Your task to perform on an android device: Search for Italian restaurants on Maps Image 0: 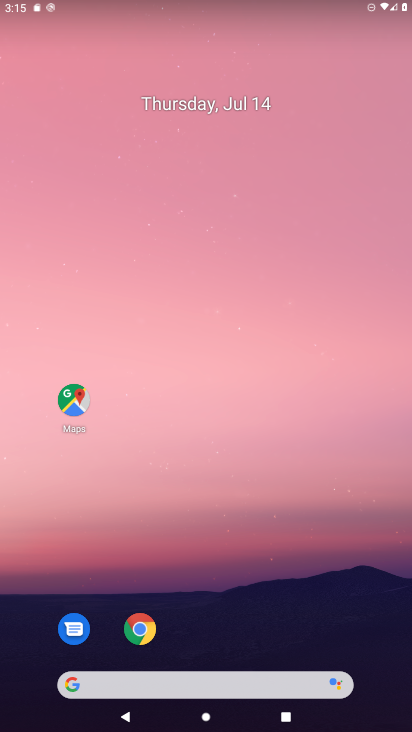
Step 0: press home button
Your task to perform on an android device: Search for Italian restaurants on Maps Image 1: 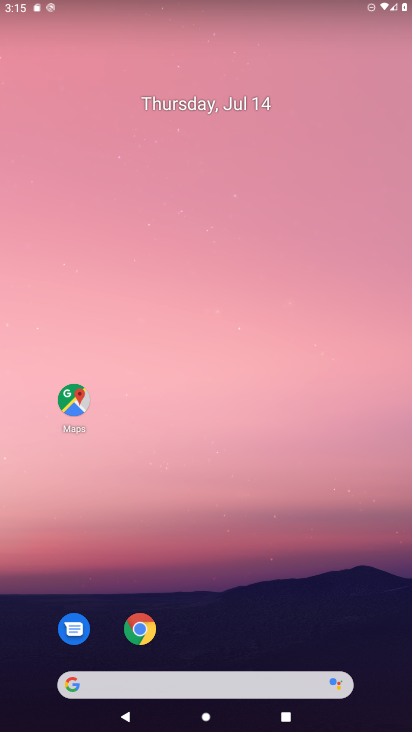
Step 1: press home button
Your task to perform on an android device: Search for Italian restaurants on Maps Image 2: 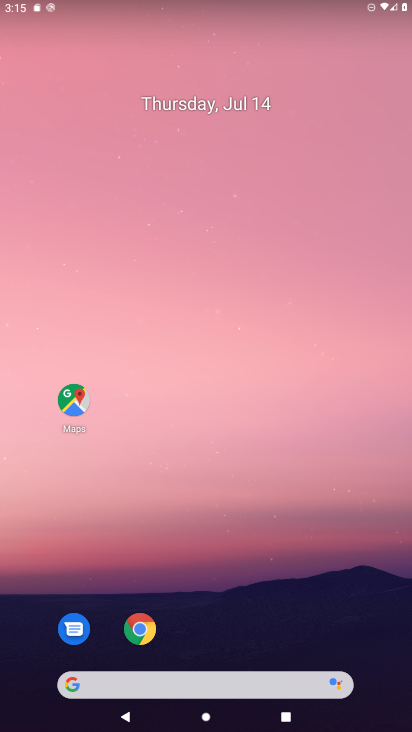
Step 2: press home button
Your task to perform on an android device: Search for Italian restaurants on Maps Image 3: 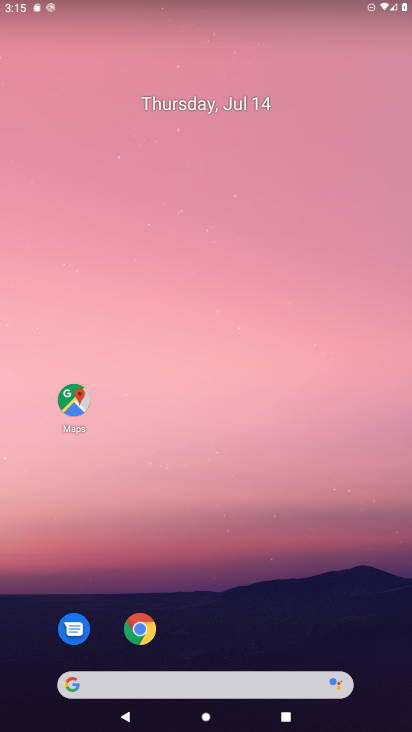
Step 3: press home button
Your task to perform on an android device: Search for Italian restaurants on Maps Image 4: 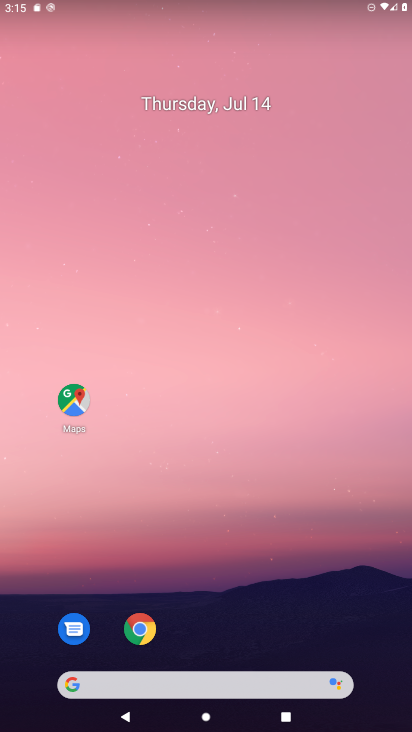
Step 4: press home button
Your task to perform on an android device: Search for Italian restaurants on Maps Image 5: 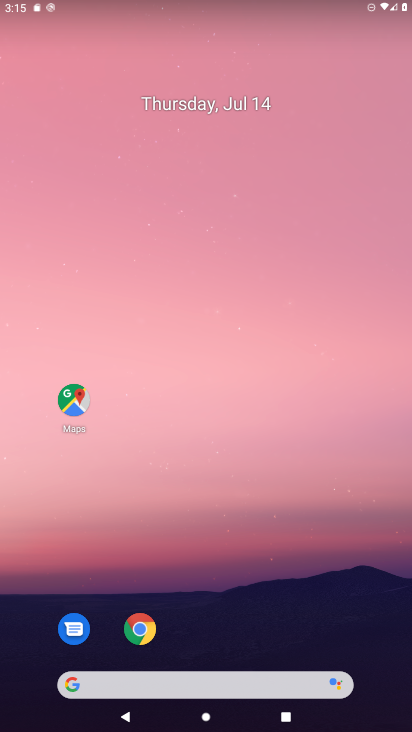
Step 5: press home button
Your task to perform on an android device: Search for Italian restaurants on Maps Image 6: 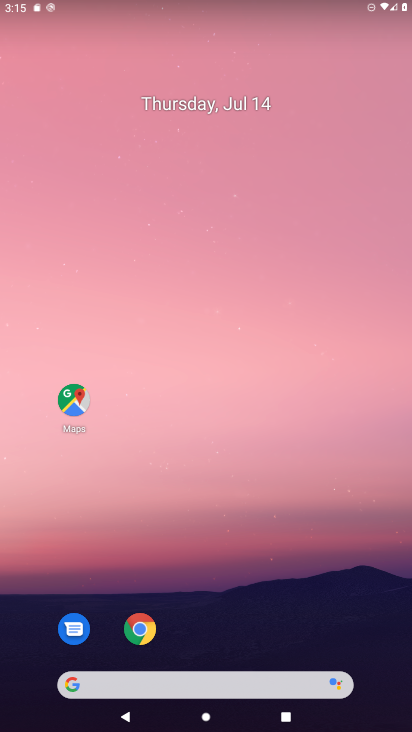
Step 6: press home button
Your task to perform on an android device: Search for Italian restaurants on Maps Image 7: 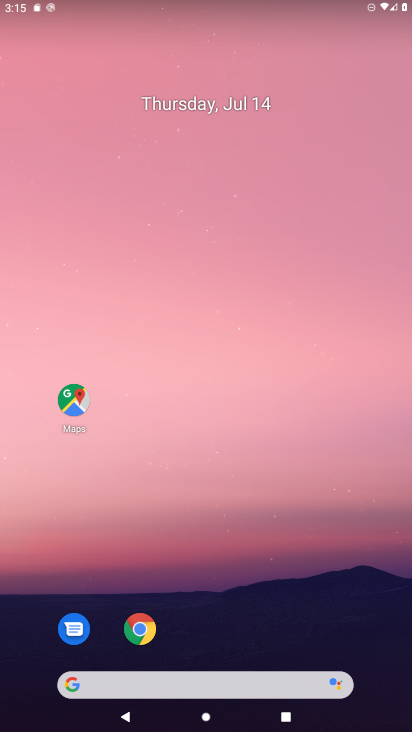
Step 7: press home button
Your task to perform on an android device: Search for Italian restaurants on Maps Image 8: 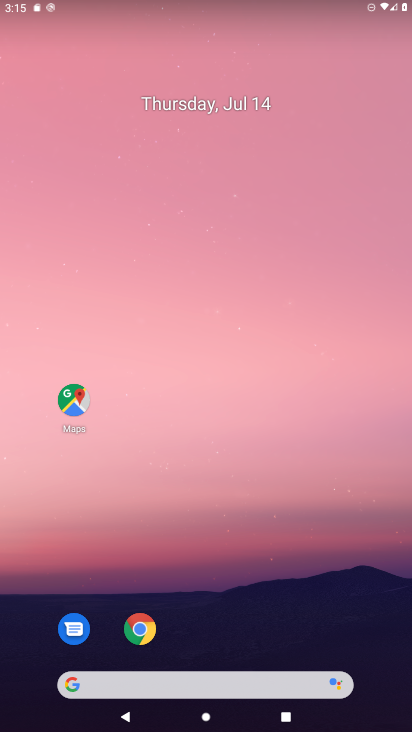
Step 8: press home button
Your task to perform on an android device: Search for Italian restaurants on Maps Image 9: 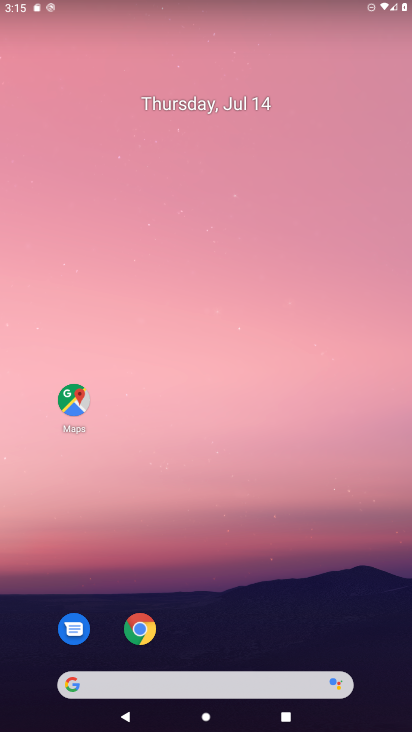
Step 9: press home button
Your task to perform on an android device: Search for Italian restaurants on Maps Image 10: 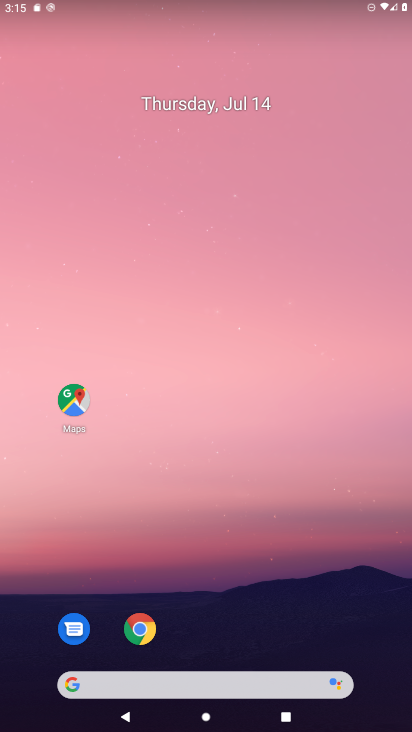
Step 10: press home button
Your task to perform on an android device: Search for Italian restaurants on Maps Image 11: 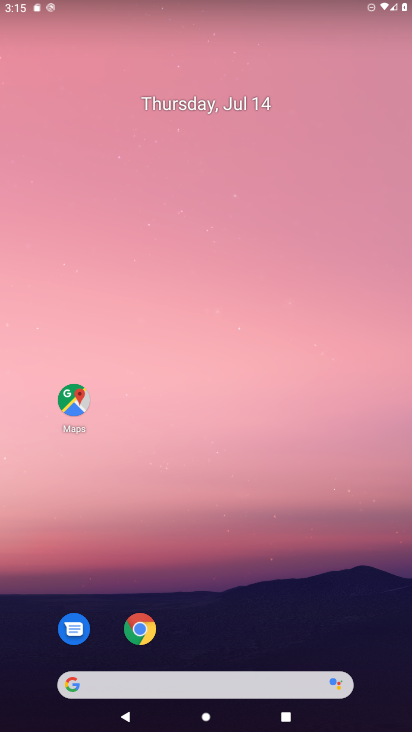
Step 11: press home button
Your task to perform on an android device: Search for Italian restaurants on Maps Image 12: 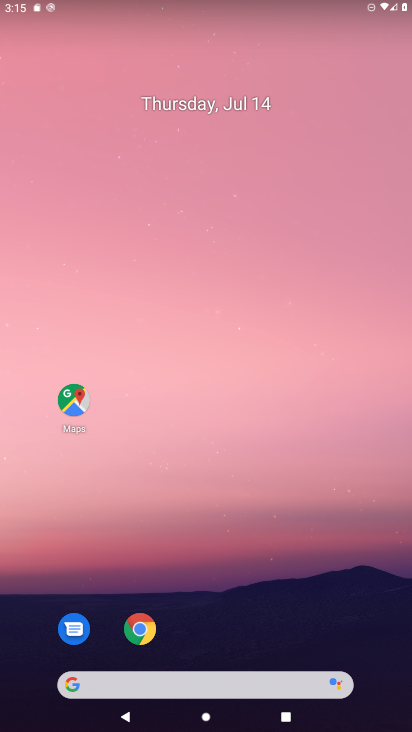
Step 12: press home button
Your task to perform on an android device: Search for Italian restaurants on Maps Image 13: 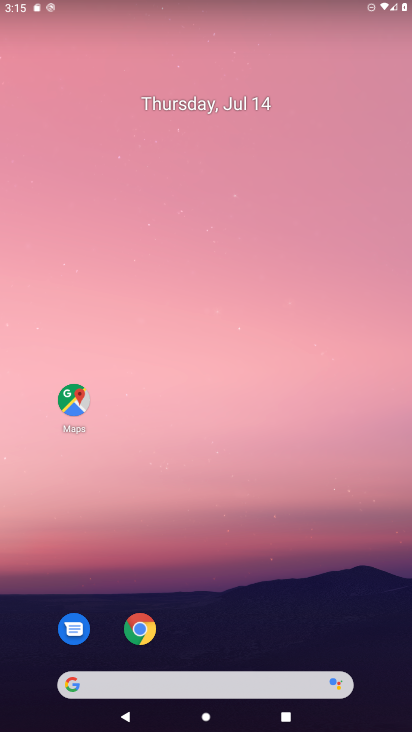
Step 13: click (76, 393)
Your task to perform on an android device: Search for Italian restaurants on Maps Image 14: 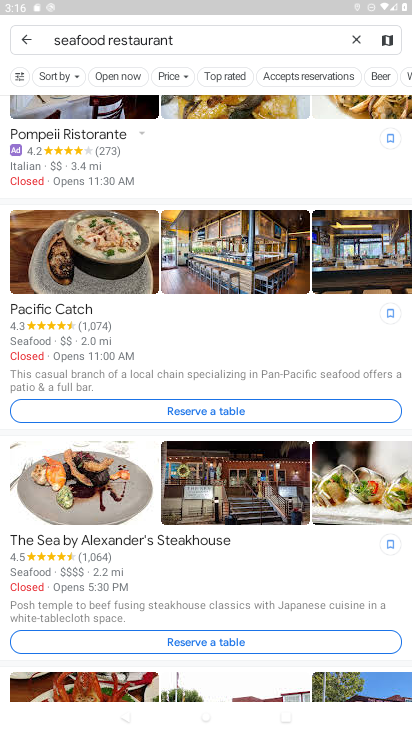
Step 14: click (353, 38)
Your task to perform on an android device: Search for Italian restaurants on Maps Image 15: 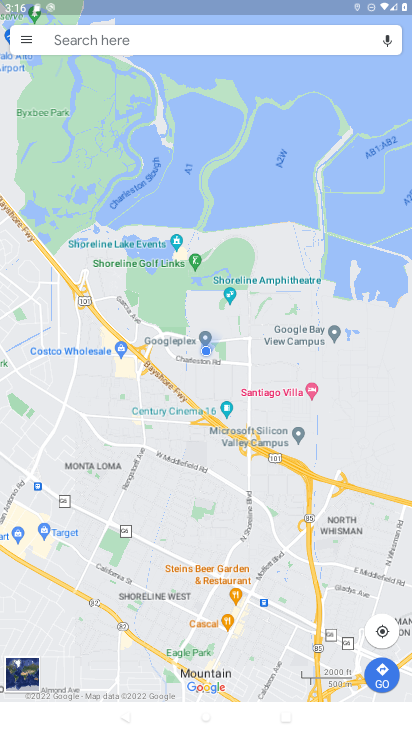
Step 15: click (108, 35)
Your task to perform on an android device: Search for Italian restaurants on Maps Image 16: 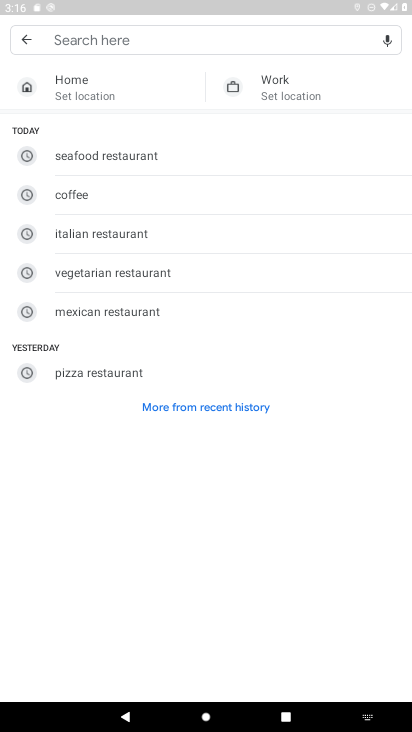
Step 16: type "italian"
Your task to perform on an android device: Search for Italian restaurants on Maps Image 17: 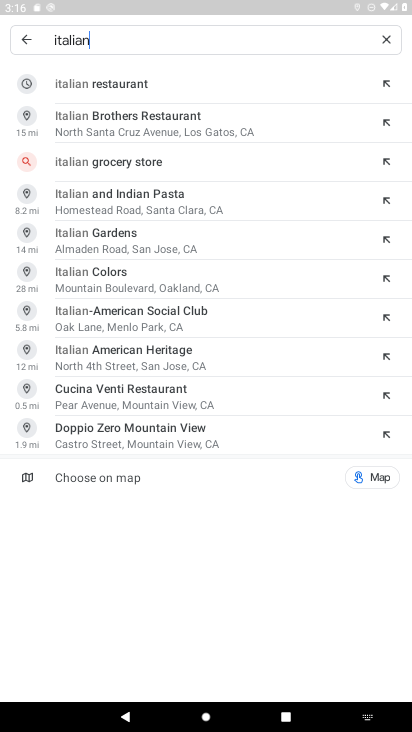
Step 17: click (152, 84)
Your task to perform on an android device: Search for Italian restaurants on Maps Image 18: 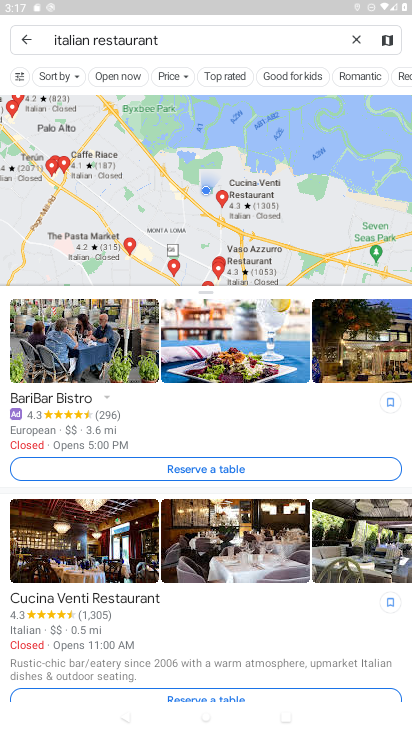
Step 18: task complete